Your task to perform on an android device: open device folders in google photos Image 0: 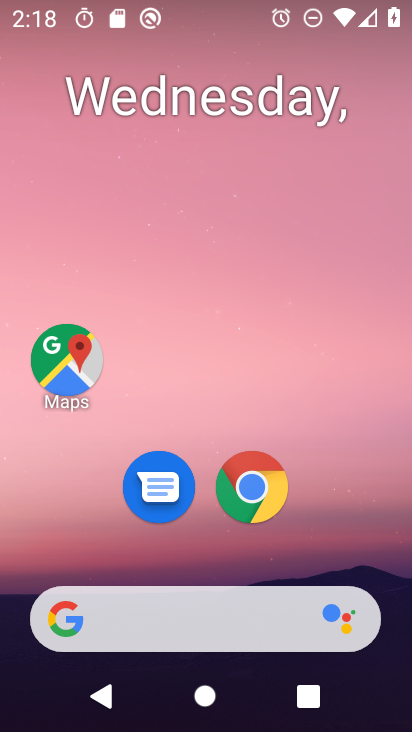
Step 0: drag from (111, 588) to (236, 10)
Your task to perform on an android device: open device folders in google photos Image 1: 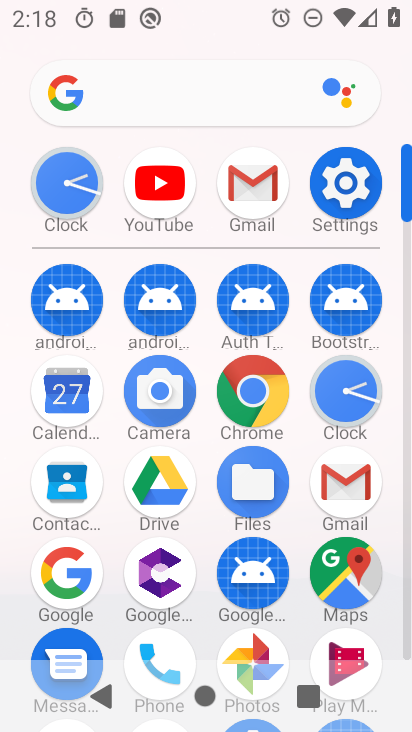
Step 1: drag from (184, 584) to (306, 102)
Your task to perform on an android device: open device folders in google photos Image 2: 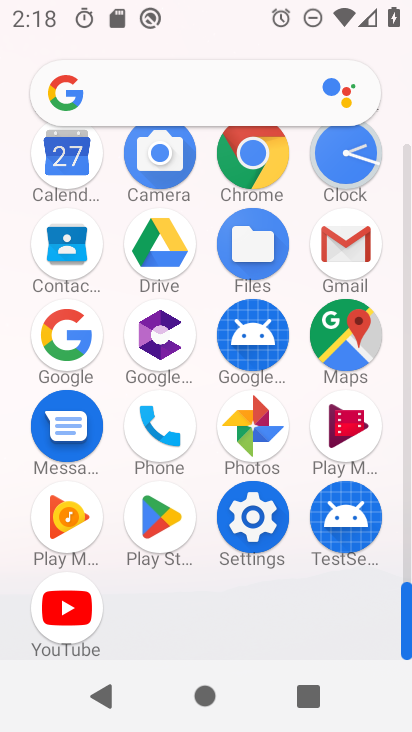
Step 2: click (258, 438)
Your task to perform on an android device: open device folders in google photos Image 3: 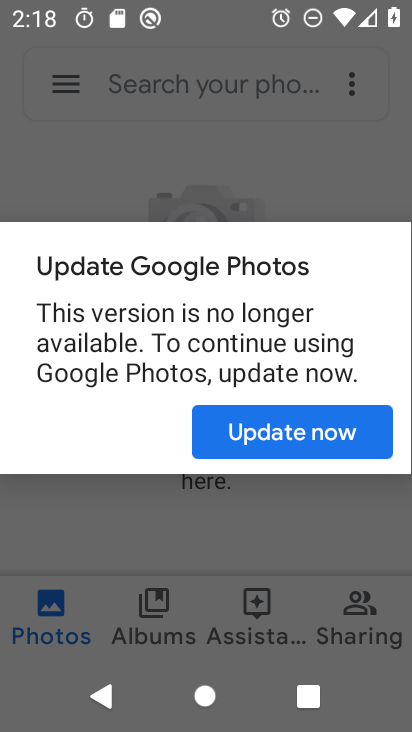
Step 3: click (271, 439)
Your task to perform on an android device: open device folders in google photos Image 4: 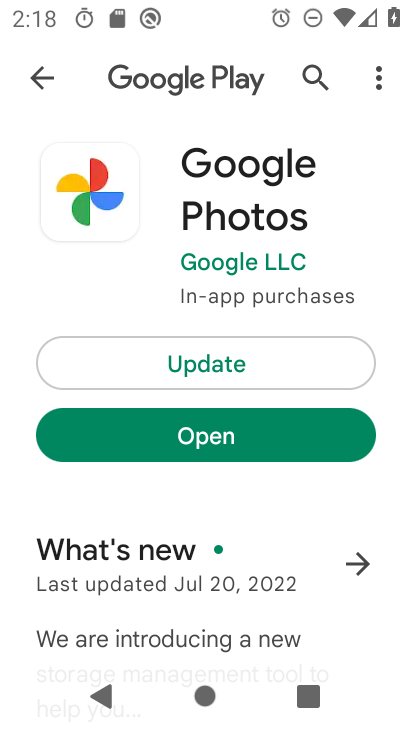
Step 4: click (185, 419)
Your task to perform on an android device: open device folders in google photos Image 5: 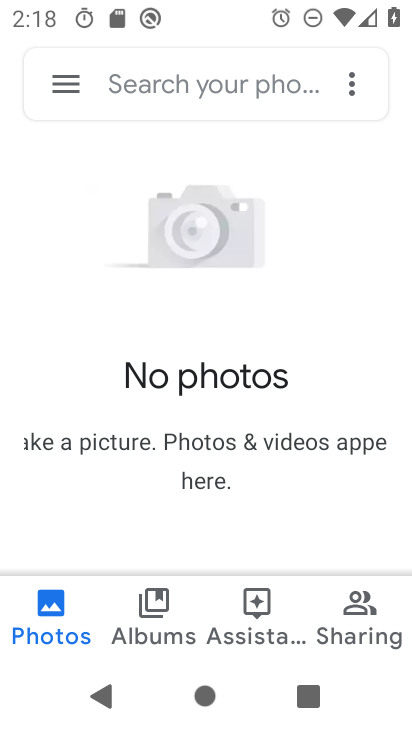
Step 5: click (58, 77)
Your task to perform on an android device: open device folders in google photos Image 6: 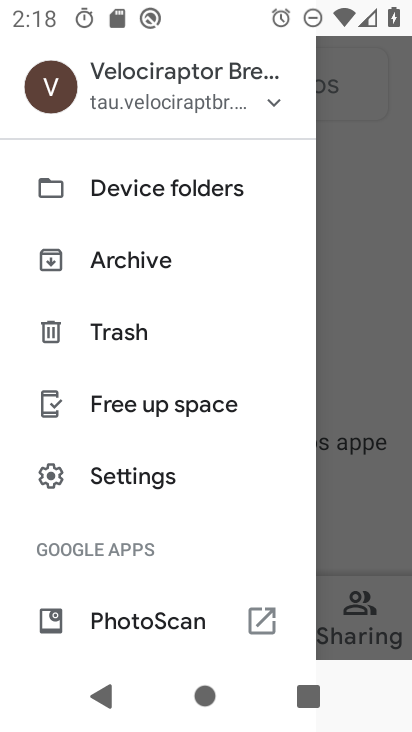
Step 6: click (154, 194)
Your task to perform on an android device: open device folders in google photos Image 7: 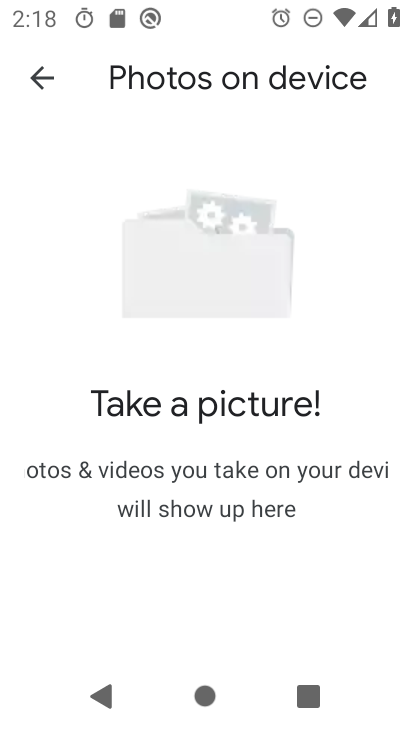
Step 7: task complete